Your task to perform on an android device: change your default location settings in chrome Image 0: 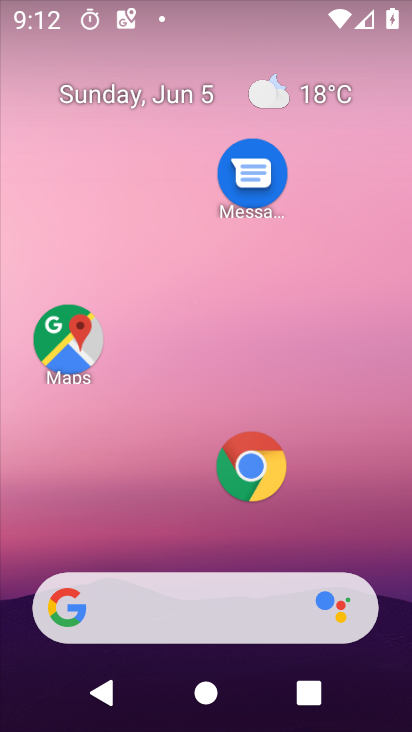
Step 0: drag from (207, 551) to (176, 2)
Your task to perform on an android device: change your default location settings in chrome Image 1: 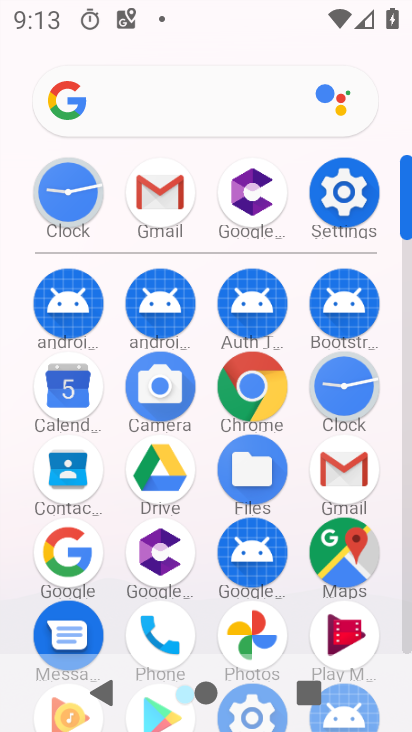
Step 1: click (248, 398)
Your task to perform on an android device: change your default location settings in chrome Image 2: 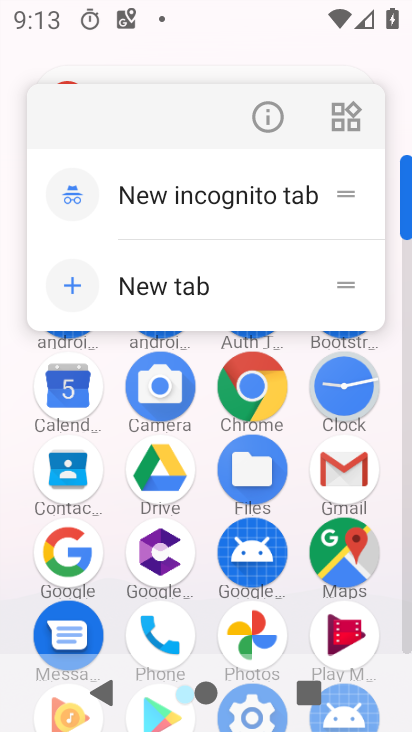
Step 2: click (265, 131)
Your task to perform on an android device: change your default location settings in chrome Image 3: 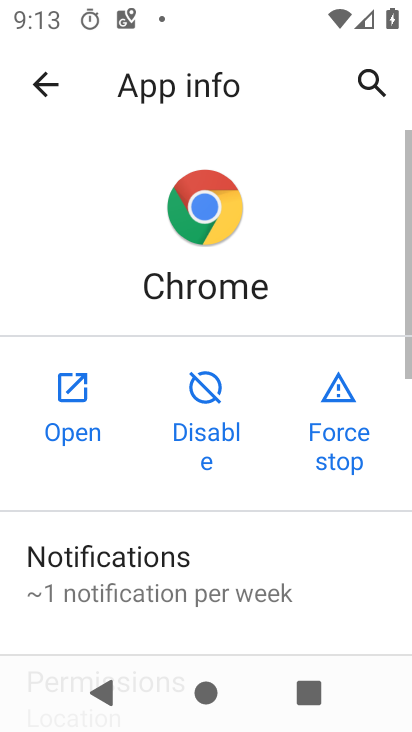
Step 3: click (71, 345)
Your task to perform on an android device: change your default location settings in chrome Image 4: 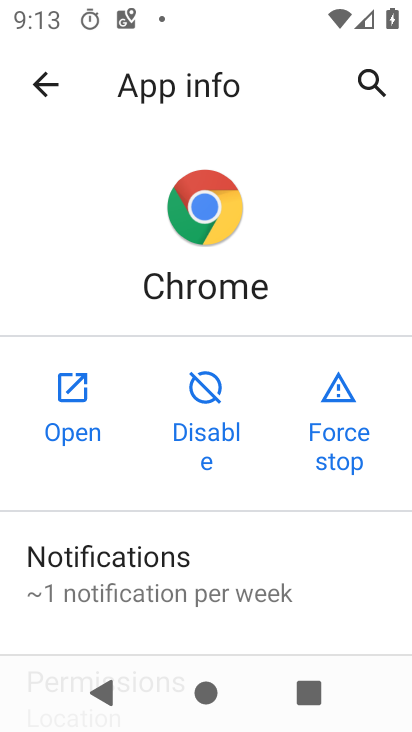
Step 4: drag from (82, 395) to (161, 85)
Your task to perform on an android device: change your default location settings in chrome Image 5: 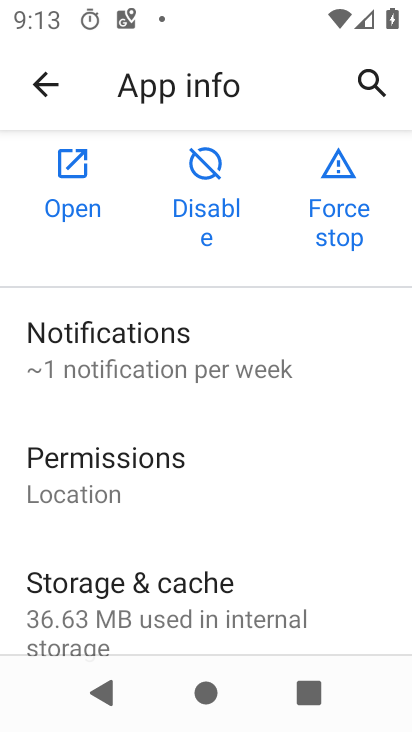
Step 5: click (55, 171)
Your task to perform on an android device: change your default location settings in chrome Image 6: 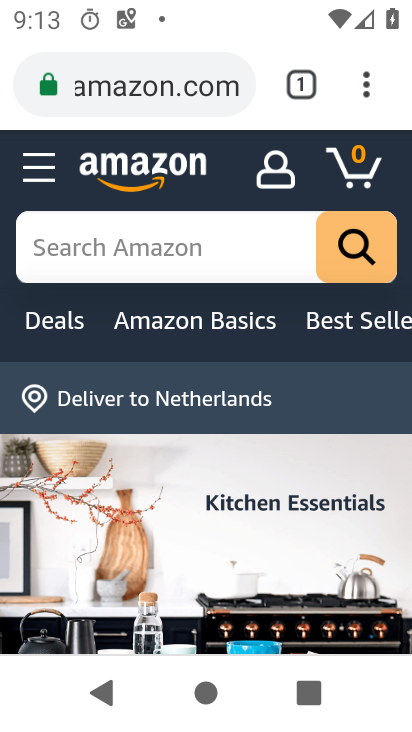
Step 6: drag from (176, 554) to (188, 135)
Your task to perform on an android device: change your default location settings in chrome Image 7: 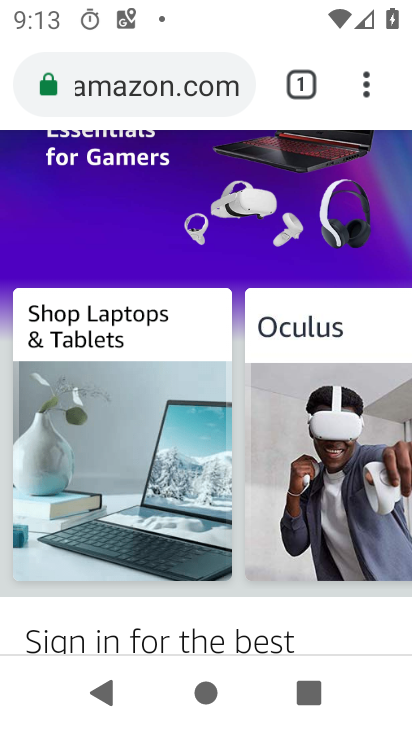
Step 7: click (368, 69)
Your task to perform on an android device: change your default location settings in chrome Image 8: 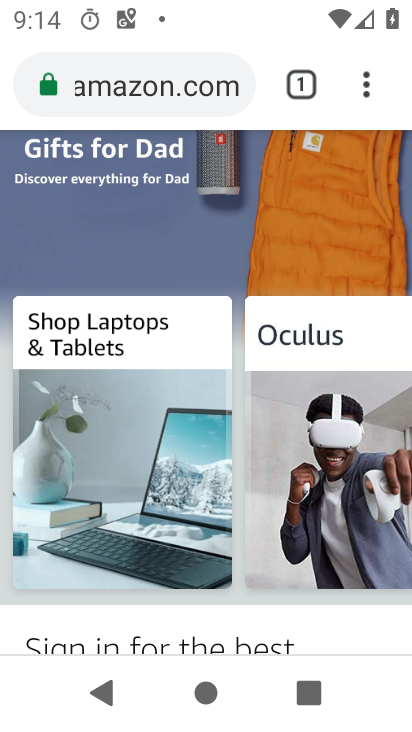
Step 8: drag from (239, 627) to (316, 46)
Your task to perform on an android device: change your default location settings in chrome Image 9: 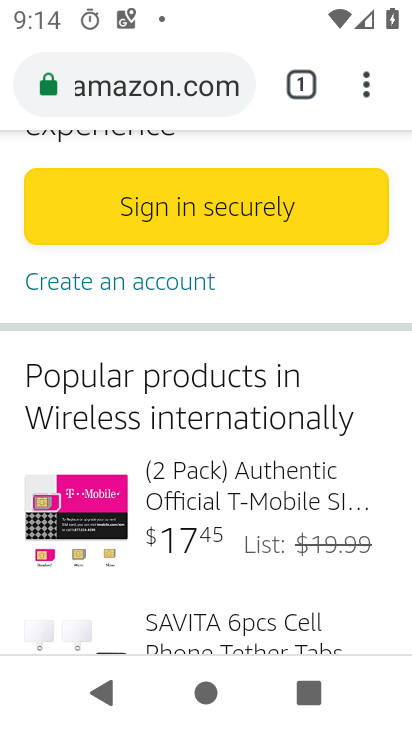
Step 9: drag from (222, 159) to (341, 453)
Your task to perform on an android device: change your default location settings in chrome Image 10: 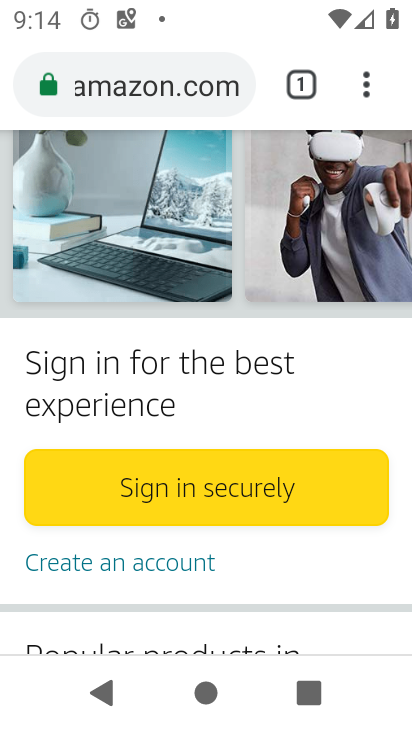
Step 10: click (374, 86)
Your task to perform on an android device: change your default location settings in chrome Image 11: 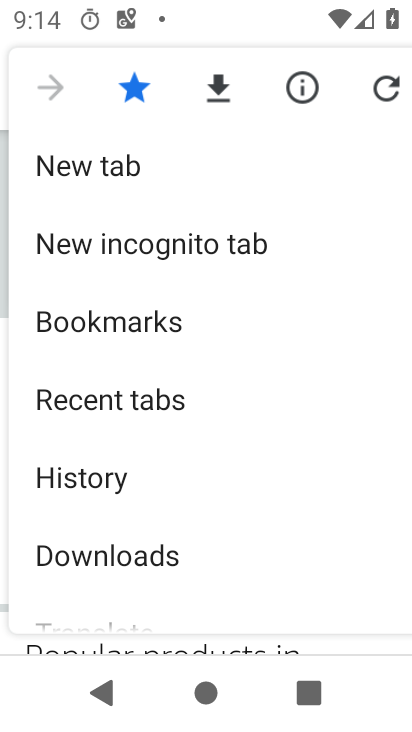
Step 11: drag from (165, 518) to (232, 170)
Your task to perform on an android device: change your default location settings in chrome Image 12: 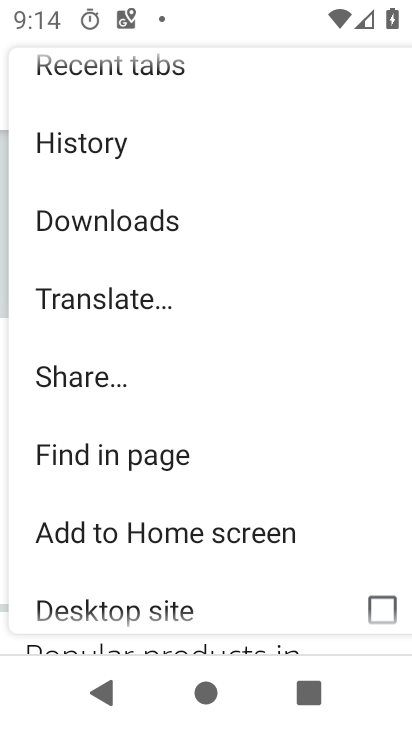
Step 12: drag from (200, 540) to (232, 267)
Your task to perform on an android device: change your default location settings in chrome Image 13: 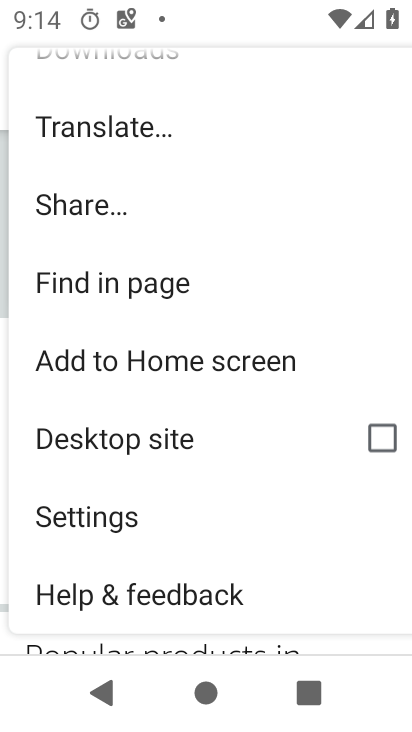
Step 13: drag from (156, 480) to (193, 243)
Your task to perform on an android device: change your default location settings in chrome Image 14: 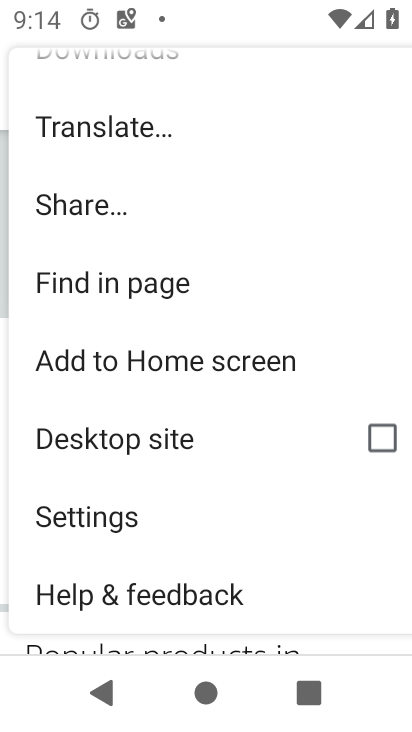
Step 14: click (143, 530)
Your task to perform on an android device: change your default location settings in chrome Image 15: 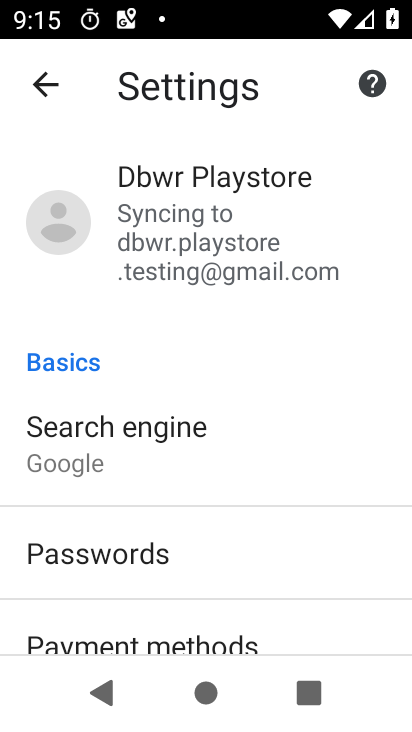
Step 15: drag from (150, 594) to (230, 250)
Your task to perform on an android device: change your default location settings in chrome Image 16: 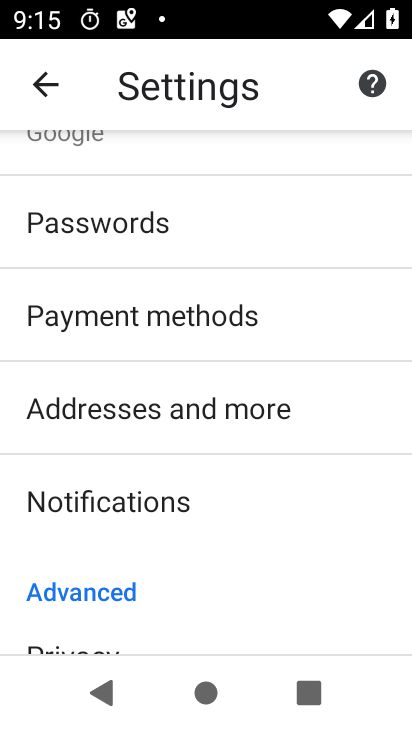
Step 16: drag from (291, 555) to (302, 110)
Your task to perform on an android device: change your default location settings in chrome Image 17: 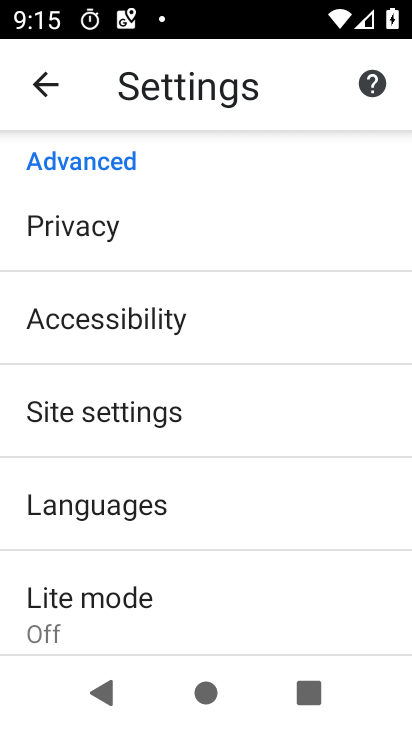
Step 17: click (167, 413)
Your task to perform on an android device: change your default location settings in chrome Image 18: 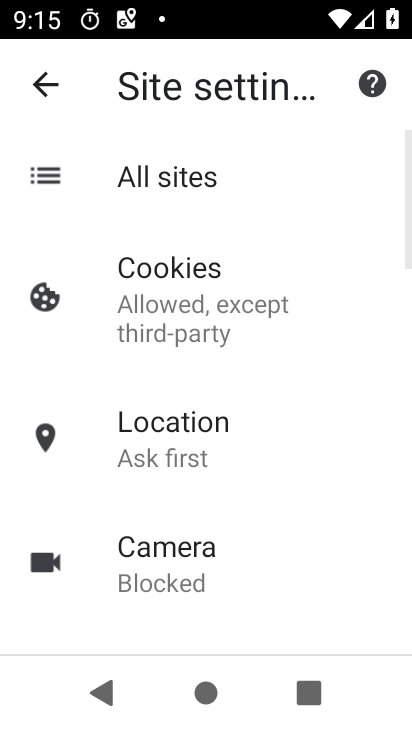
Step 18: click (211, 436)
Your task to perform on an android device: change your default location settings in chrome Image 19: 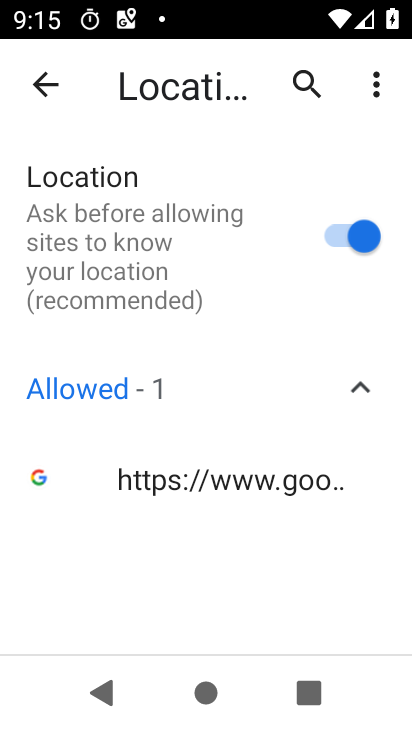
Step 19: drag from (209, 436) to (274, 222)
Your task to perform on an android device: change your default location settings in chrome Image 20: 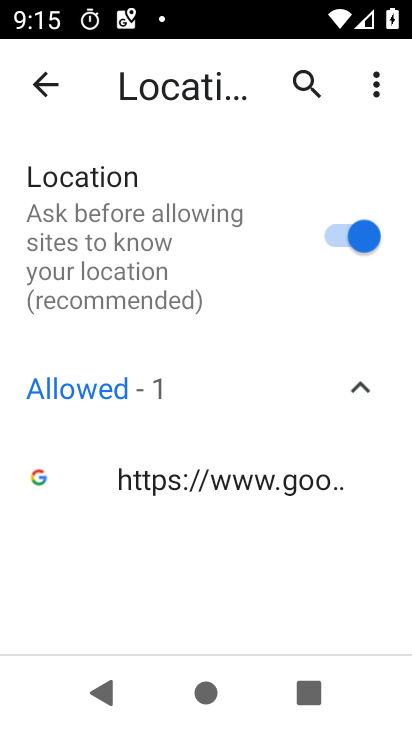
Step 20: click (346, 217)
Your task to perform on an android device: change your default location settings in chrome Image 21: 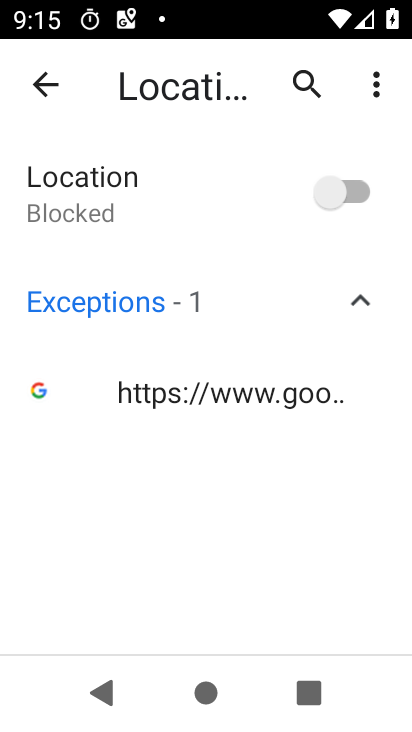
Step 21: task complete